Your task to perform on an android device: create a new album in the google photos Image 0: 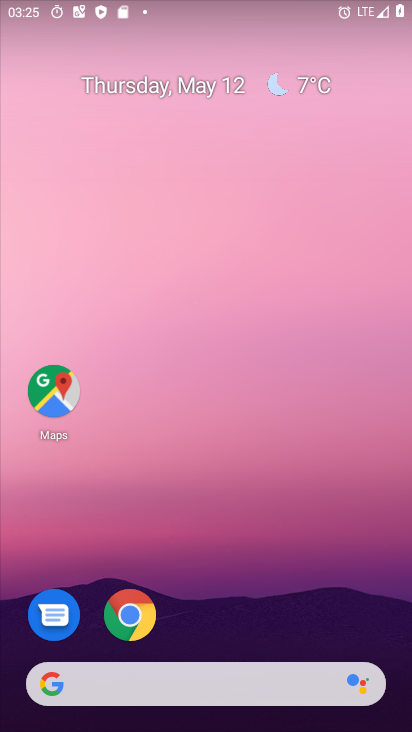
Step 0: drag from (258, 691) to (152, 122)
Your task to perform on an android device: create a new album in the google photos Image 1: 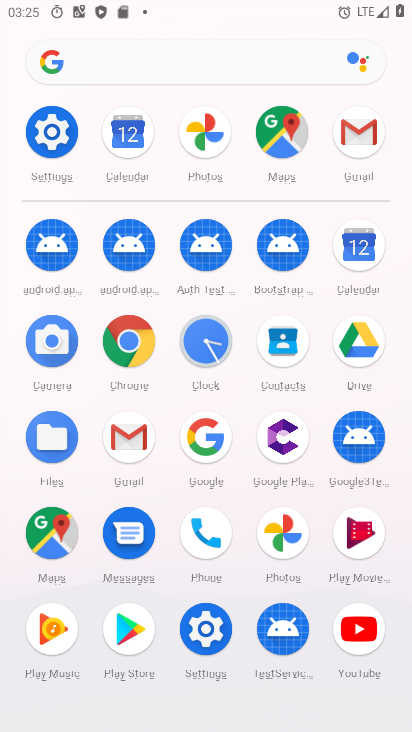
Step 1: click (284, 516)
Your task to perform on an android device: create a new album in the google photos Image 2: 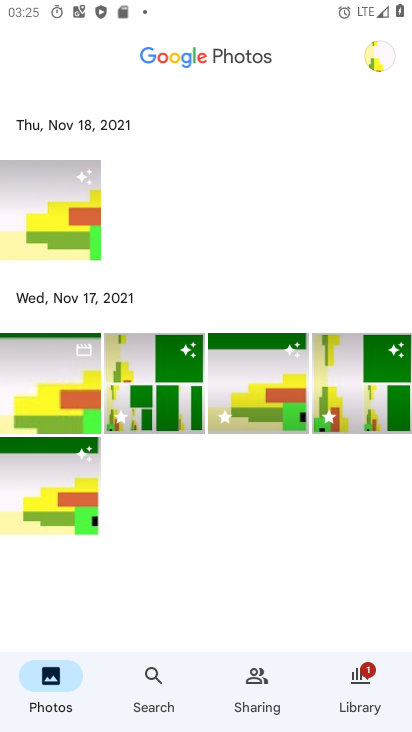
Step 2: click (252, 693)
Your task to perform on an android device: create a new album in the google photos Image 3: 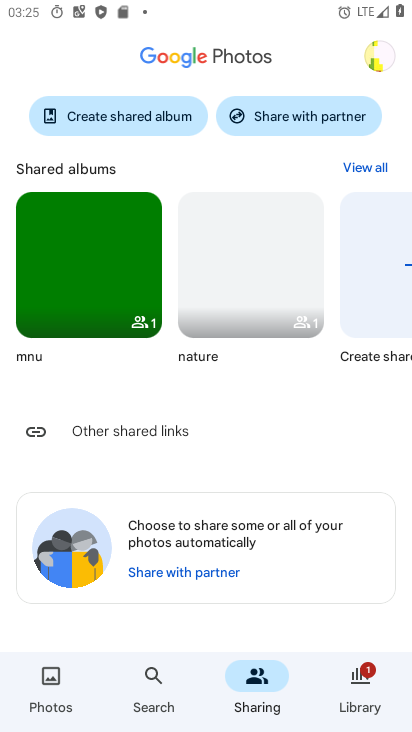
Step 3: click (366, 704)
Your task to perform on an android device: create a new album in the google photos Image 4: 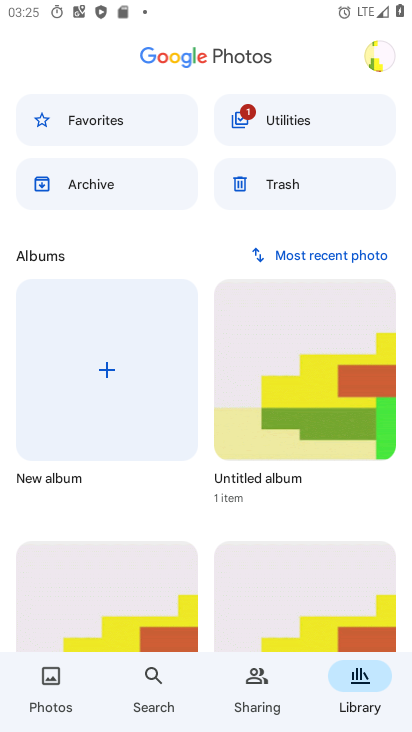
Step 4: click (120, 354)
Your task to perform on an android device: create a new album in the google photos Image 5: 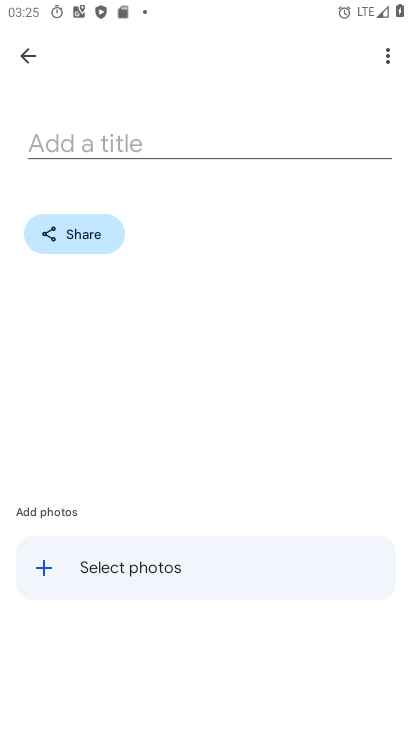
Step 5: click (124, 128)
Your task to perform on an android device: create a new album in the google photos Image 6: 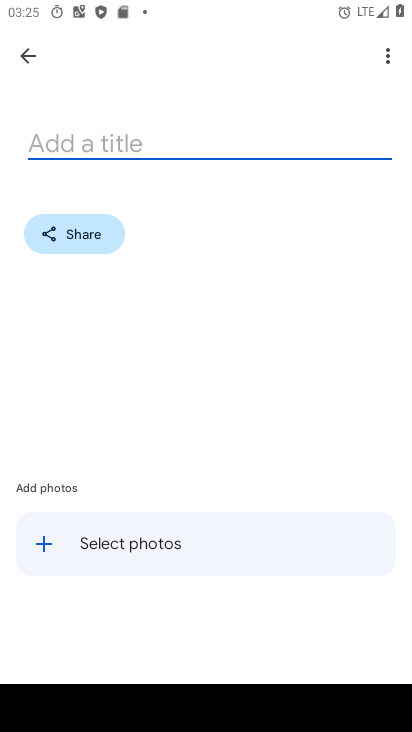
Step 6: click (125, 140)
Your task to perform on an android device: create a new album in the google photos Image 7: 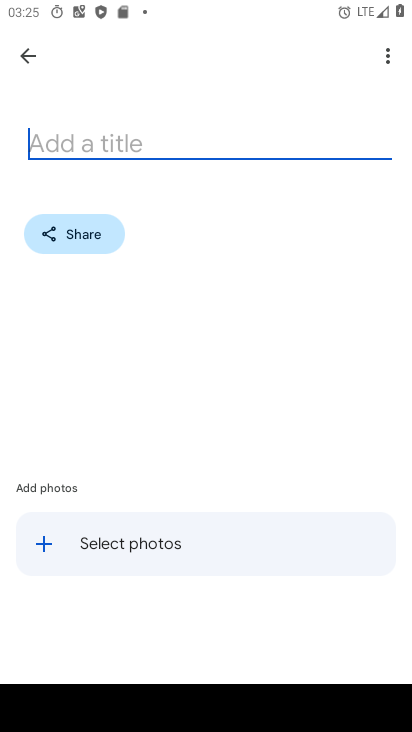
Step 7: type "hdhfyhj"
Your task to perform on an android device: create a new album in the google photos Image 8: 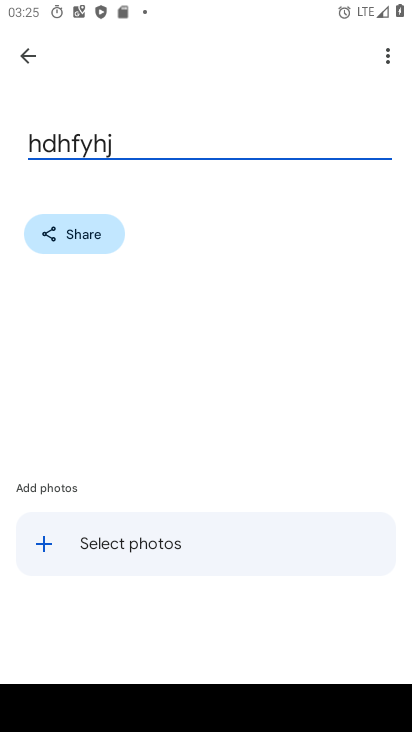
Step 8: click (119, 538)
Your task to perform on an android device: create a new album in the google photos Image 9: 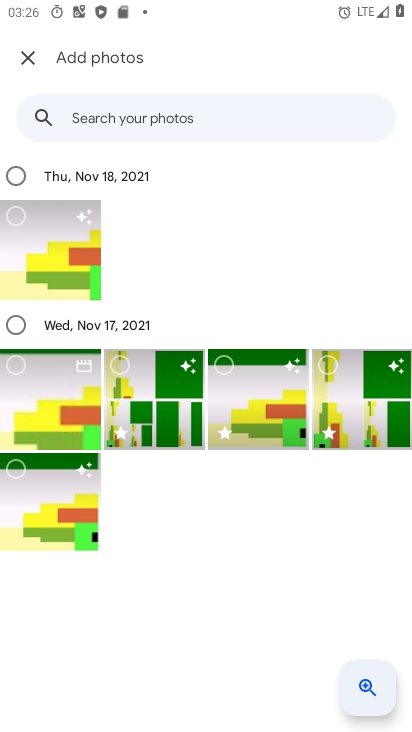
Step 9: click (22, 169)
Your task to perform on an android device: create a new album in the google photos Image 10: 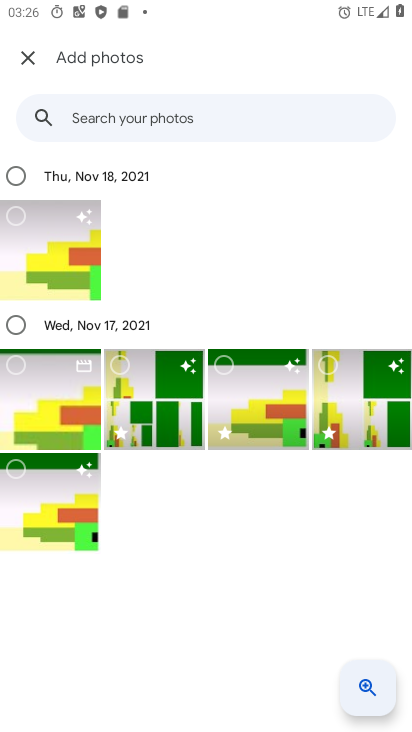
Step 10: click (11, 183)
Your task to perform on an android device: create a new album in the google photos Image 11: 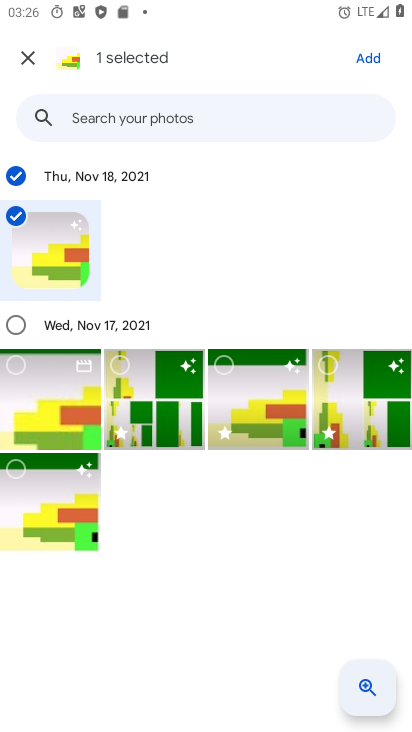
Step 11: task complete